Your task to perform on an android device: turn on bluetooth scan Image 0: 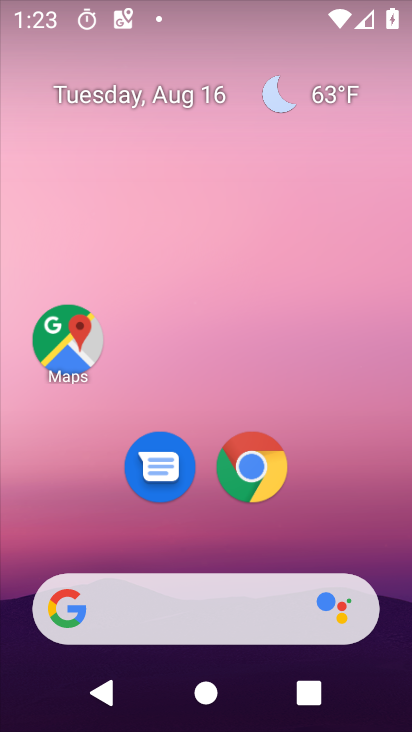
Step 0: press home button
Your task to perform on an android device: turn on bluetooth scan Image 1: 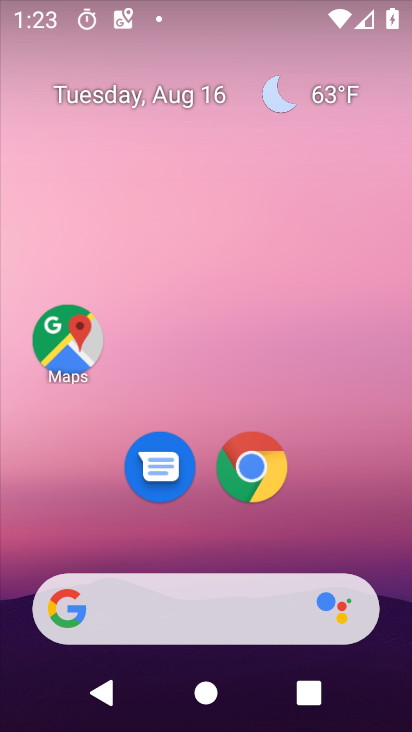
Step 1: drag from (355, 552) to (316, 158)
Your task to perform on an android device: turn on bluetooth scan Image 2: 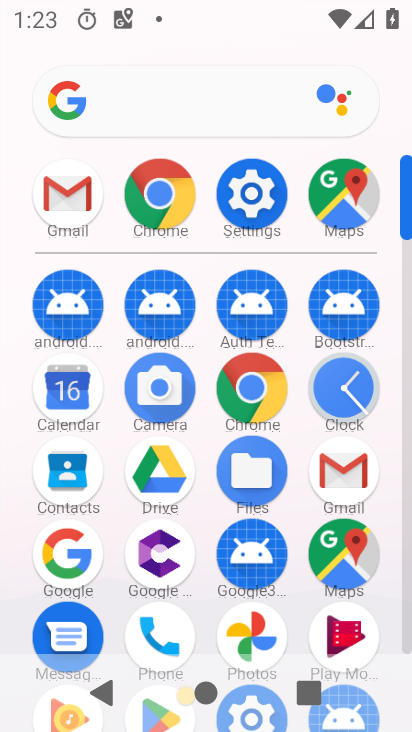
Step 2: click (256, 191)
Your task to perform on an android device: turn on bluetooth scan Image 3: 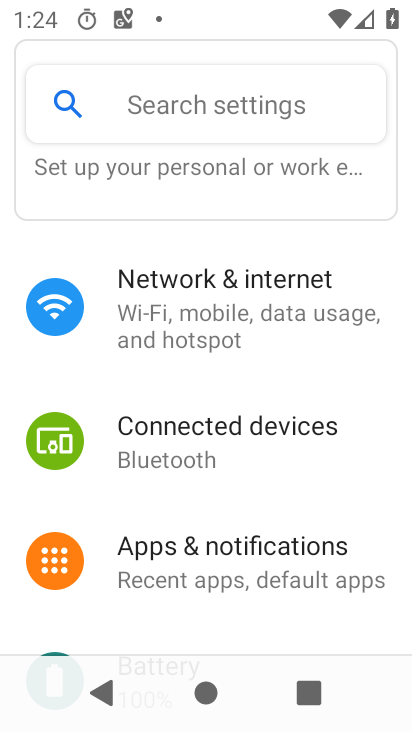
Step 3: drag from (361, 523) to (369, 438)
Your task to perform on an android device: turn on bluetooth scan Image 4: 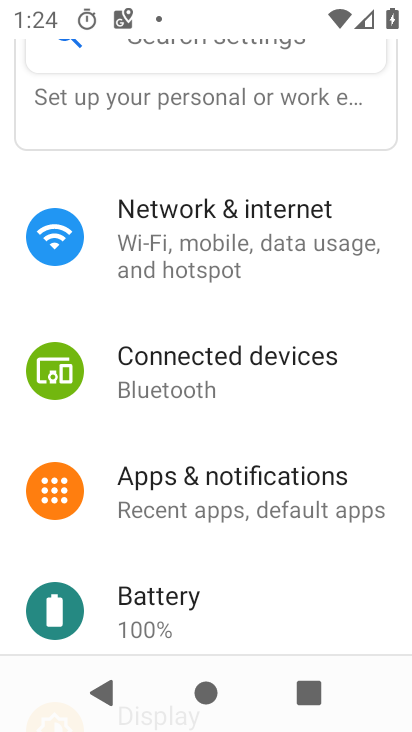
Step 4: drag from (373, 591) to (374, 468)
Your task to perform on an android device: turn on bluetooth scan Image 5: 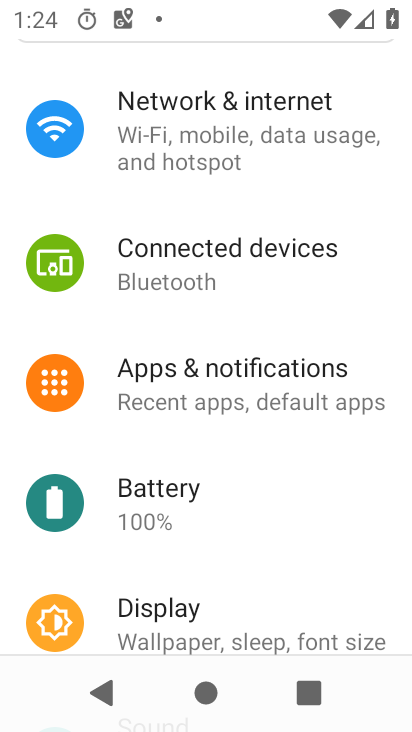
Step 5: drag from (386, 560) to (396, 437)
Your task to perform on an android device: turn on bluetooth scan Image 6: 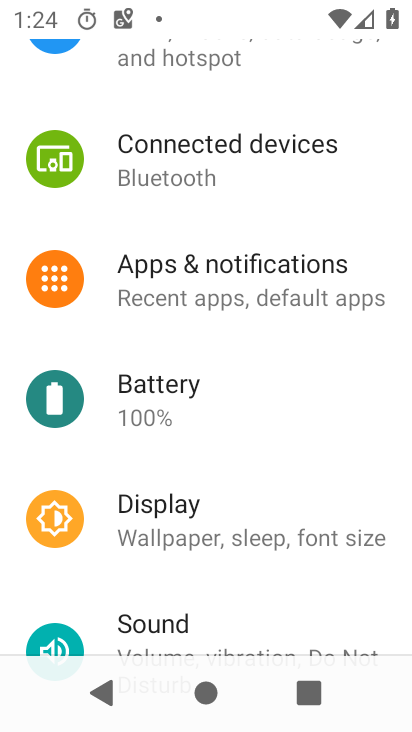
Step 6: drag from (375, 570) to (375, 451)
Your task to perform on an android device: turn on bluetooth scan Image 7: 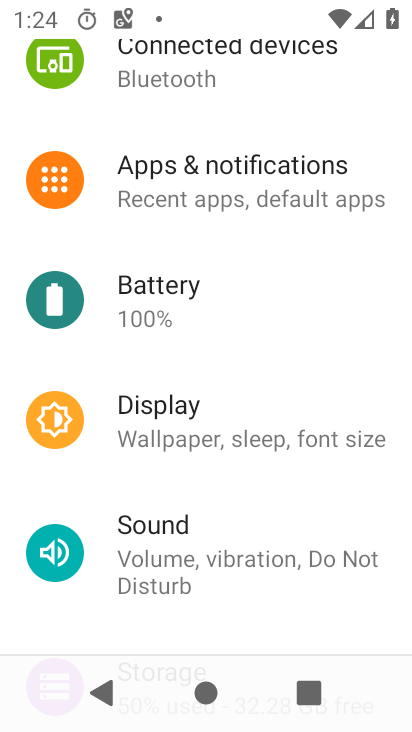
Step 7: drag from (361, 542) to (360, 436)
Your task to perform on an android device: turn on bluetooth scan Image 8: 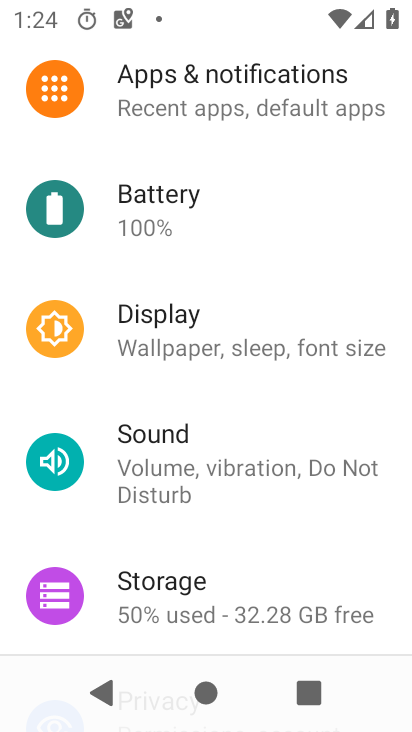
Step 8: drag from (357, 573) to (365, 463)
Your task to perform on an android device: turn on bluetooth scan Image 9: 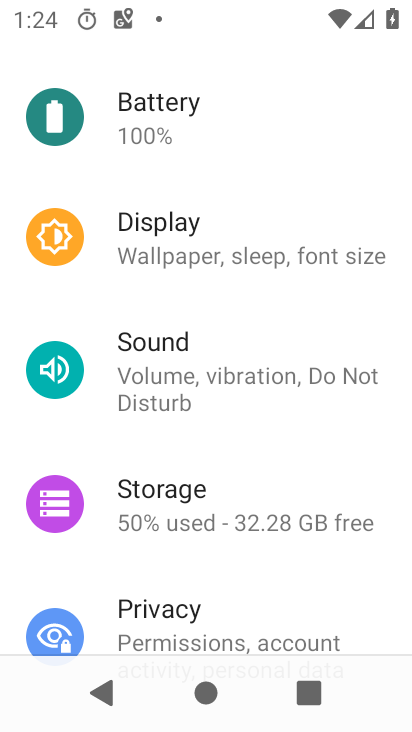
Step 9: drag from (344, 572) to (350, 449)
Your task to perform on an android device: turn on bluetooth scan Image 10: 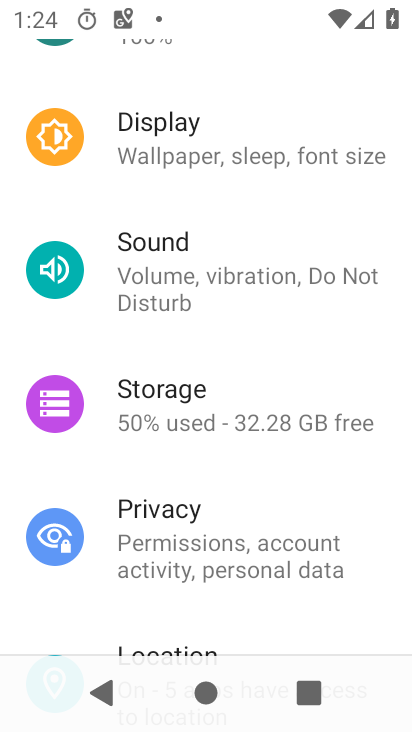
Step 10: drag from (371, 585) to (368, 461)
Your task to perform on an android device: turn on bluetooth scan Image 11: 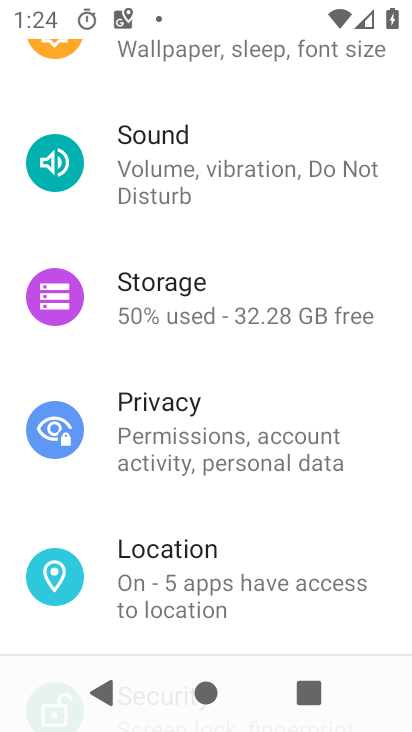
Step 11: drag from (345, 596) to (344, 411)
Your task to perform on an android device: turn on bluetooth scan Image 12: 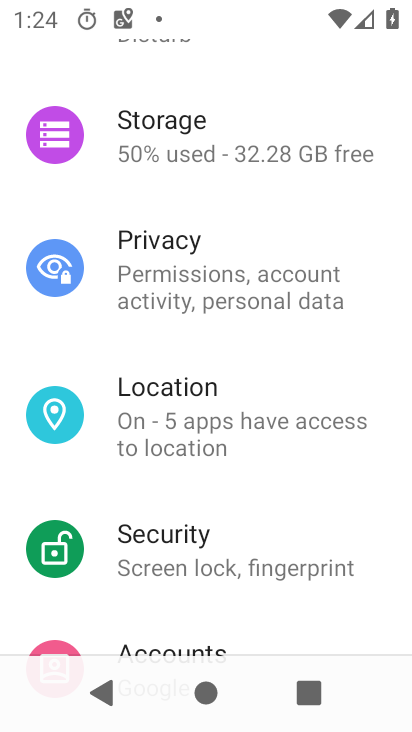
Step 12: click (283, 421)
Your task to perform on an android device: turn on bluetooth scan Image 13: 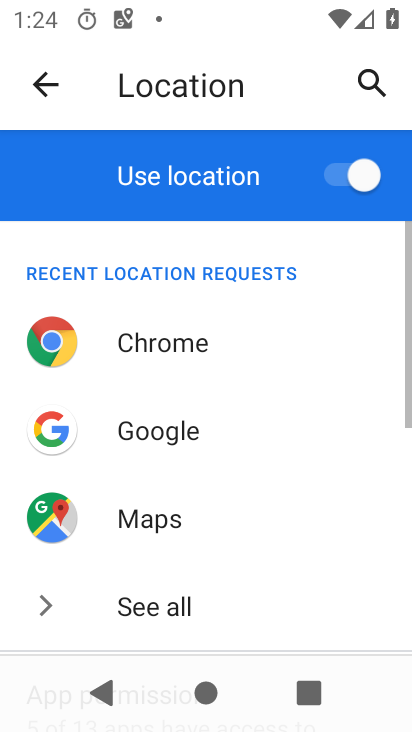
Step 13: drag from (310, 524) to (307, 398)
Your task to perform on an android device: turn on bluetooth scan Image 14: 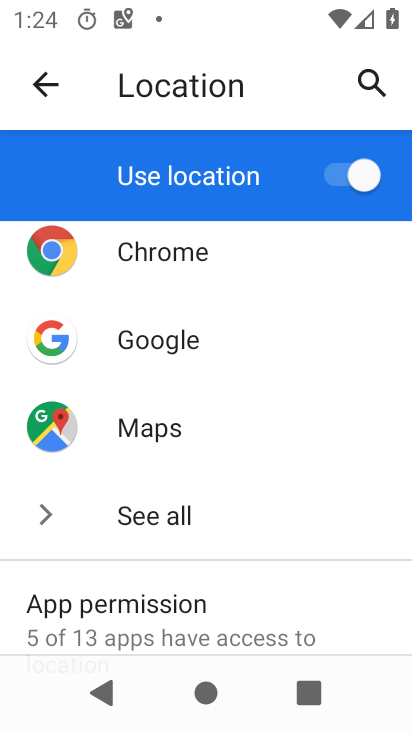
Step 14: drag from (296, 541) to (304, 406)
Your task to perform on an android device: turn on bluetooth scan Image 15: 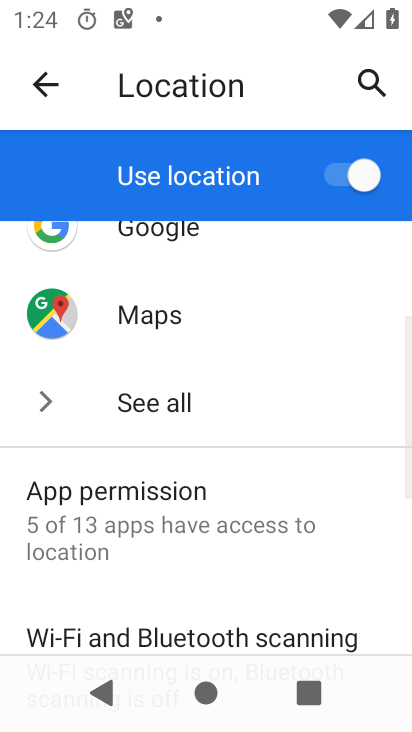
Step 15: drag from (293, 577) to (300, 443)
Your task to perform on an android device: turn on bluetooth scan Image 16: 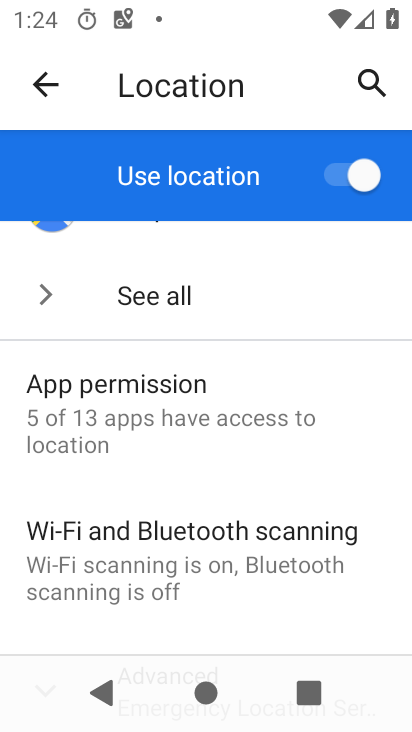
Step 16: click (300, 557)
Your task to perform on an android device: turn on bluetooth scan Image 17: 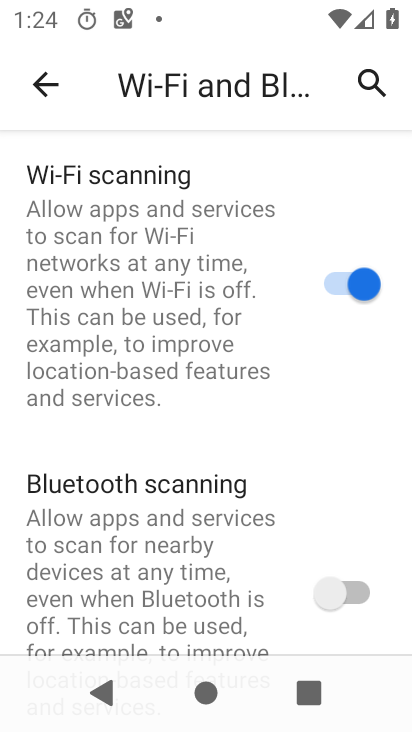
Step 17: click (329, 600)
Your task to perform on an android device: turn on bluetooth scan Image 18: 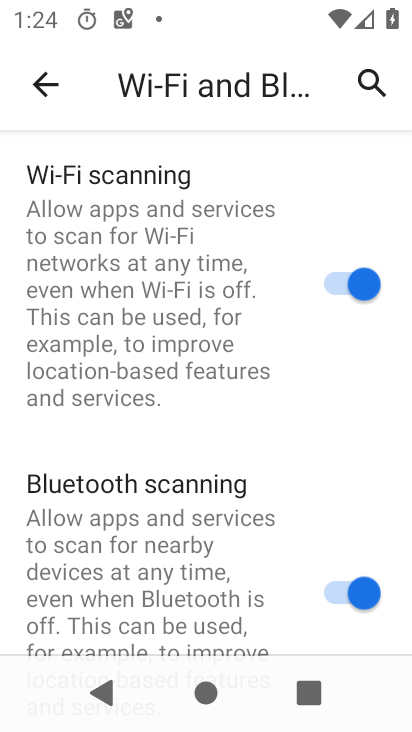
Step 18: task complete